Your task to perform on an android device: move an email to a new category in the gmail app Image 0: 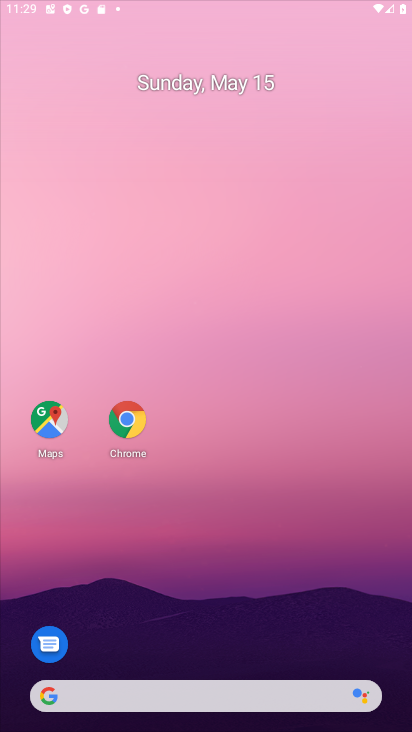
Step 0: click (315, 228)
Your task to perform on an android device: move an email to a new category in the gmail app Image 1: 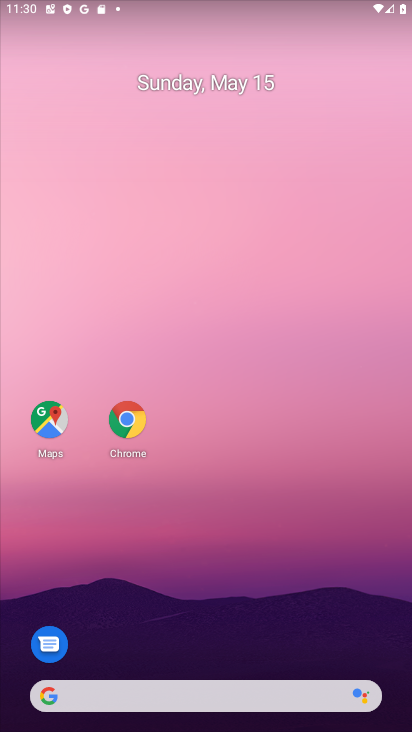
Step 1: drag from (205, 639) to (264, 121)
Your task to perform on an android device: move an email to a new category in the gmail app Image 2: 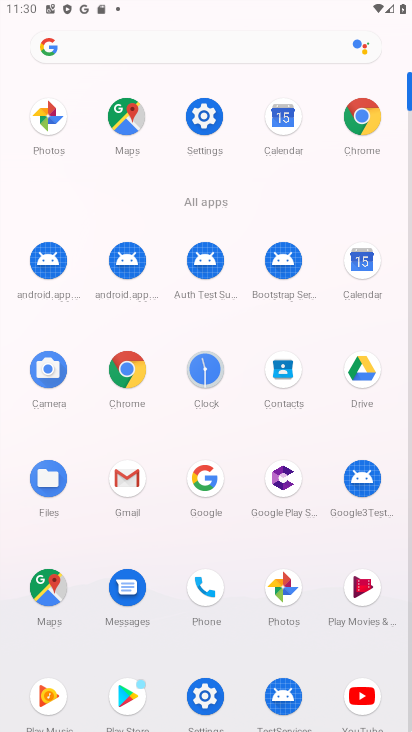
Step 2: drag from (230, 569) to (249, 184)
Your task to perform on an android device: move an email to a new category in the gmail app Image 3: 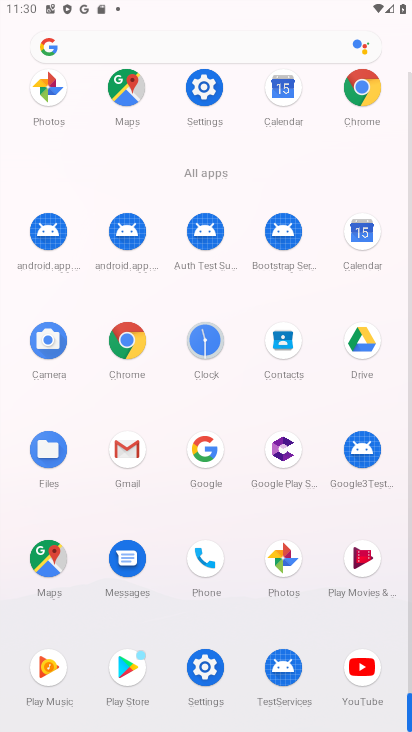
Step 3: click (130, 448)
Your task to perform on an android device: move an email to a new category in the gmail app Image 4: 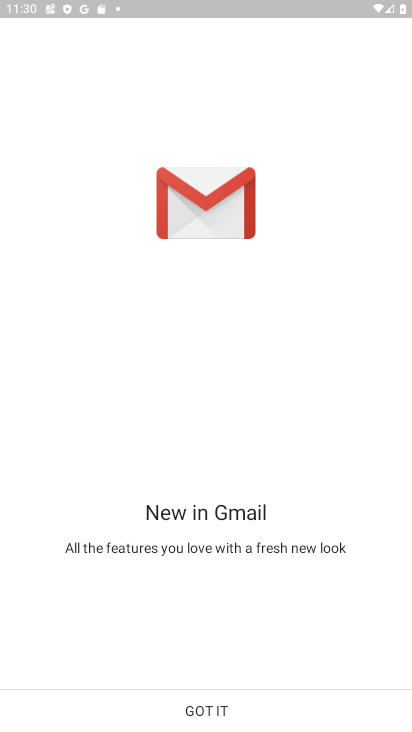
Step 4: click (201, 711)
Your task to perform on an android device: move an email to a new category in the gmail app Image 5: 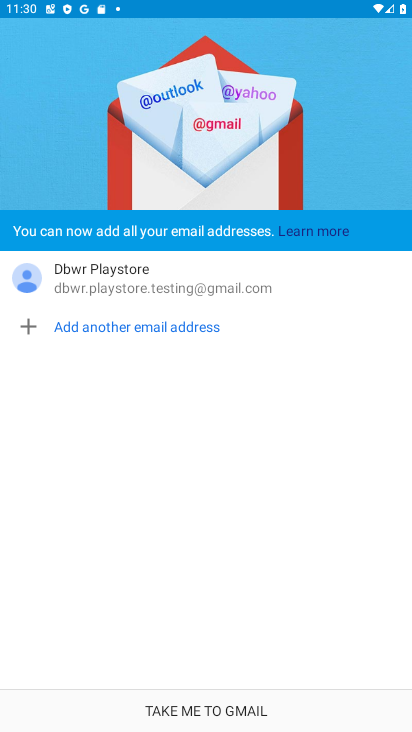
Step 5: click (176, 705)
Your task to perform on an android device: move an email to a new category in the gmail app Image 6: 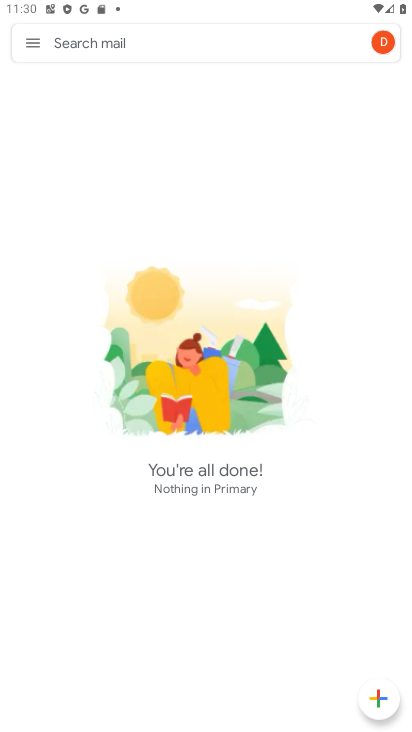
Step 6: click (35, 31)
Your task to perform on an android device: move an email to a new category in the gmail app Image 7: 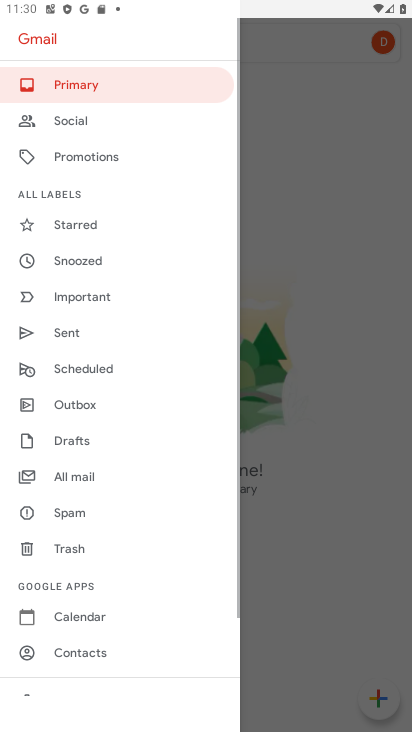
Step 7: click (83, 93)
Your task to perform on an android device: move an email to a new category in the gmail app Image 8: 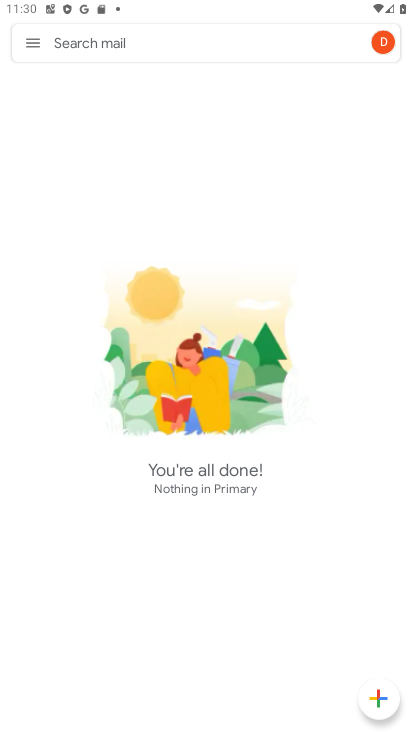
Step 8: task complete